Your task to perform on an android device: Show me the alarms in the clock app Image 0: 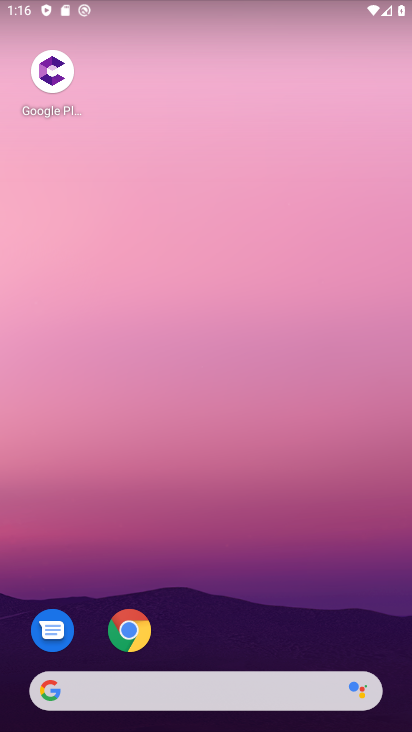
Step 0: drag from (214, 457) to (199, 82)
Your task to perform on an android device: Show me the alarms in the clock app Image 1: 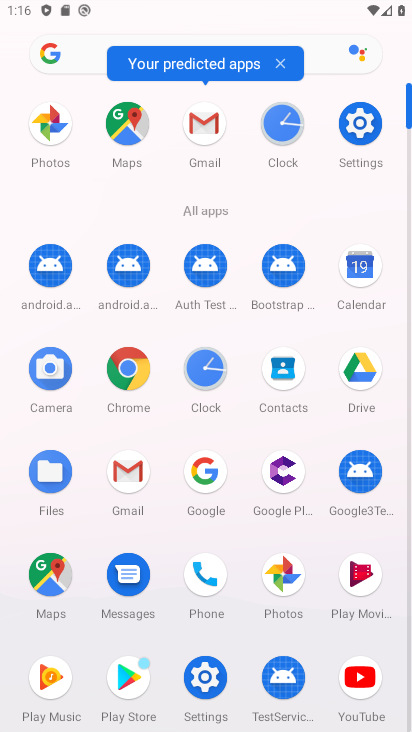
Step 1: click (210, 374)
Your task to perform on an android device: Show me the alarms in the clock app Image 2: 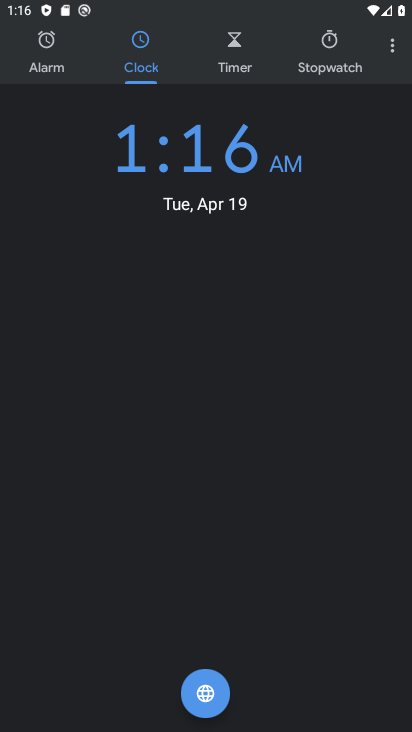
Step 2: click (43, 47)
Your task to perform on an android device: Show me the alarms in the clock app Image 3: 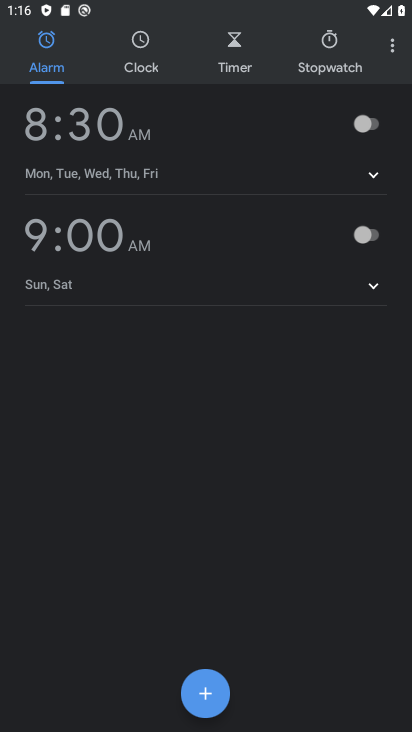
Step 3: task complete